Your task to perform on an android device: change notifications settings Image 0: 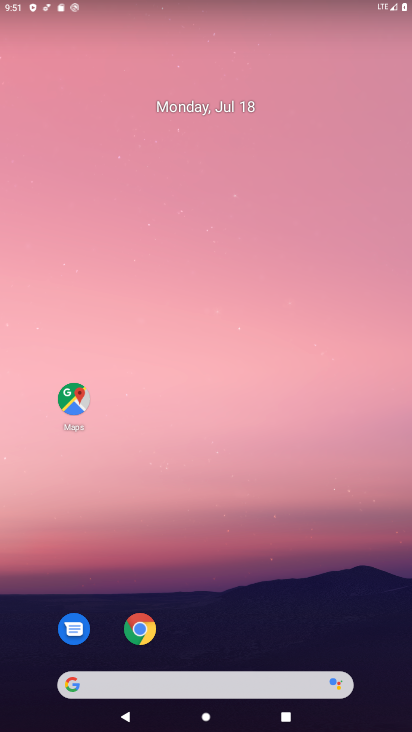
Step 0: drag from (205, 679) to (207, 125)
Your task to perform on an android device: change notifications settings Image 1: 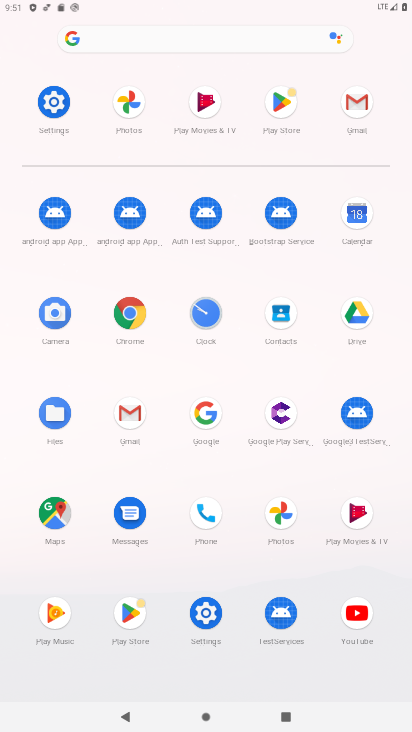
Step 1: click (203, 603)
Your task to perform on an android device: change notifications settings Image 2: 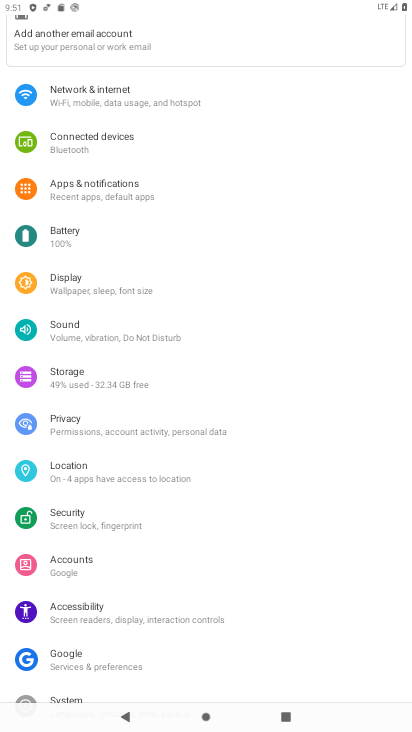
Step 2: click (89, 340)
Your task to perform on an android device: change notifications settings Image 3: 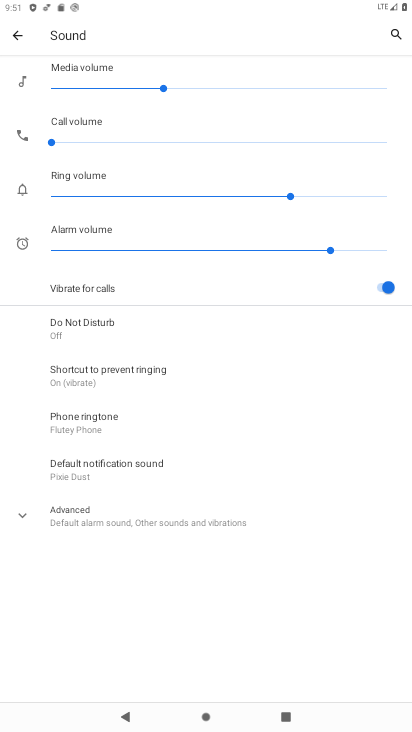
Step 3: click (108, 423)
Your task to perform on an android device: change notifications settings Image 4: 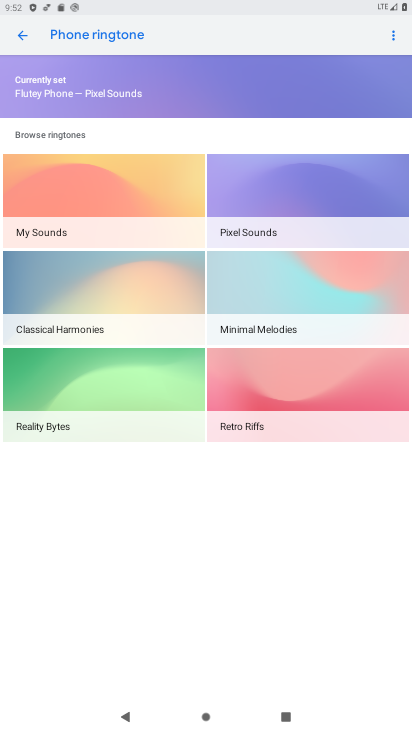
Step 4: click (277, 275)
Your task to perform on an android device: change notifications settings Image 5: 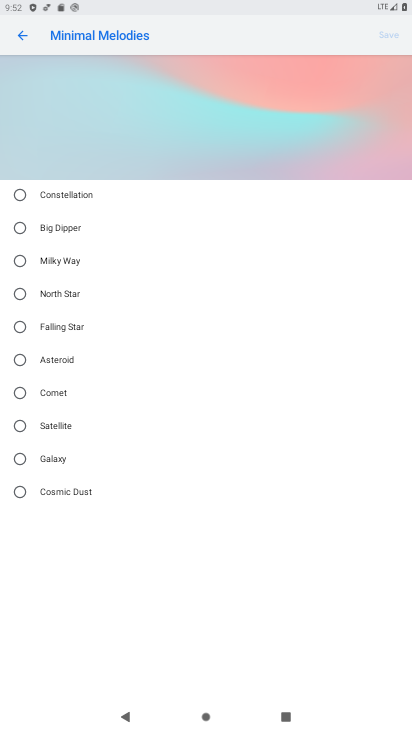
Step 5: click (30, 224)
Your task to perform on an android device: change notifications settings Image 6: 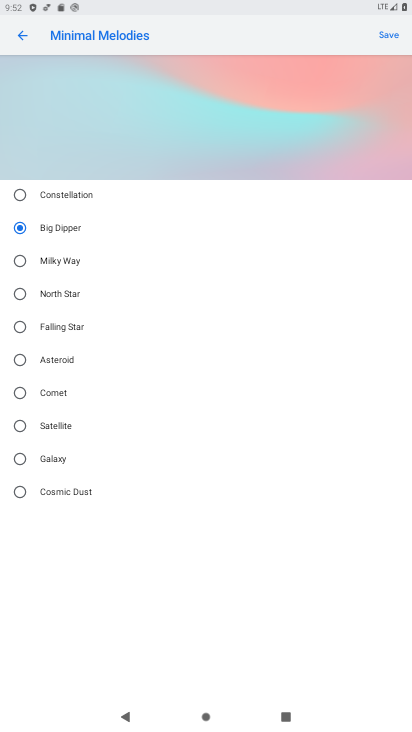
Step 6: task complete